Your task to perform on an android device: toggle translation in the chrome app Image 0: 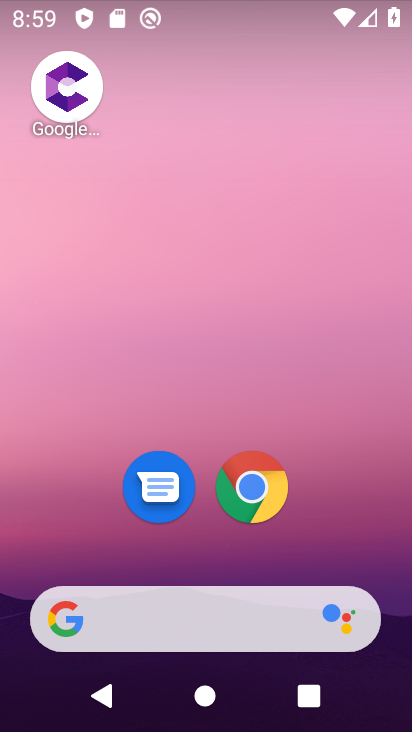
Step 0: click (250, 496)
Your task to perform on an android device: toggle translation in the chrome app Image 1: 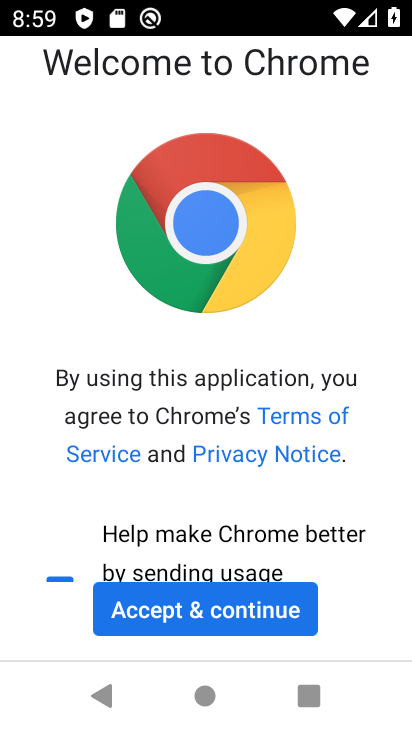
Step 1: click (198, 612)
Your task to perform on an android device: toggle translation in the chrome app Image 2: 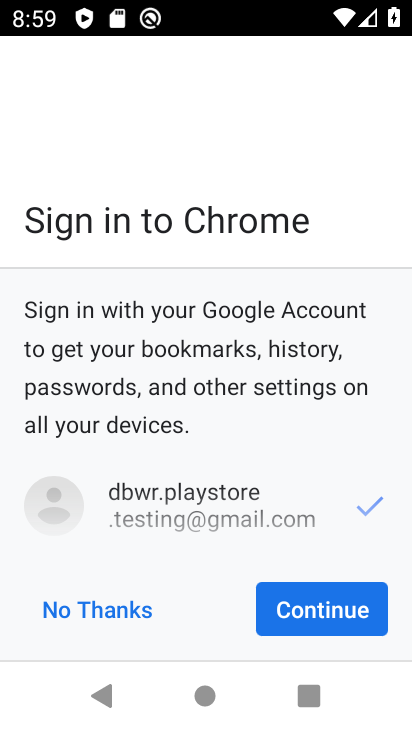
Step 2: click (306, 608)
Your task to perform on an android device: toggle translation in the chrome app Image 3: 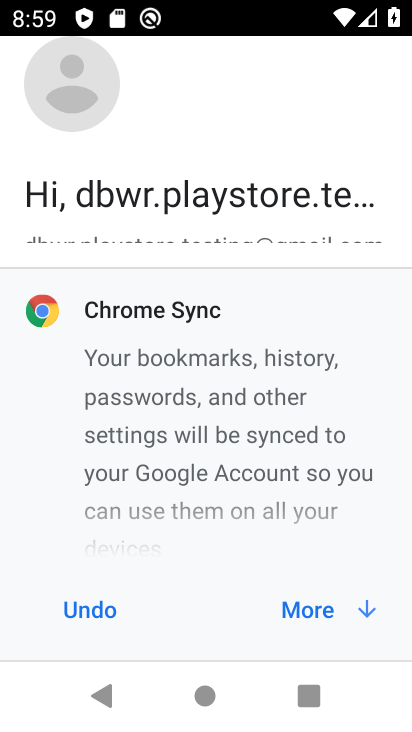
Step 3: click (306, 608)
Your task to perform on an android device: toggle translation in the chrome app Image 4: 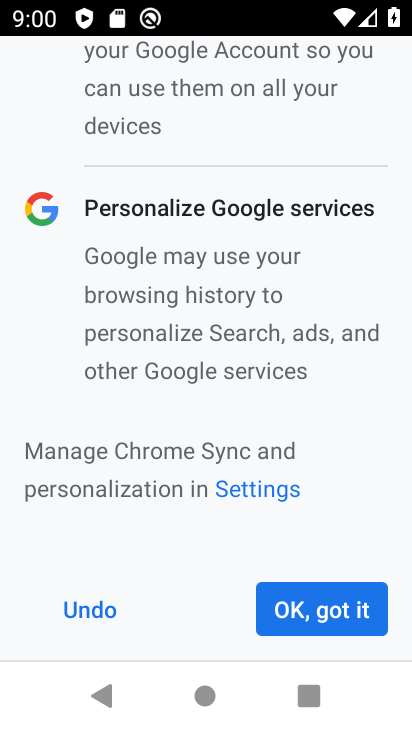
Step 4: click (306, 608)
Your task to perform on an android device: toggle translation in the chrome app Image 5: 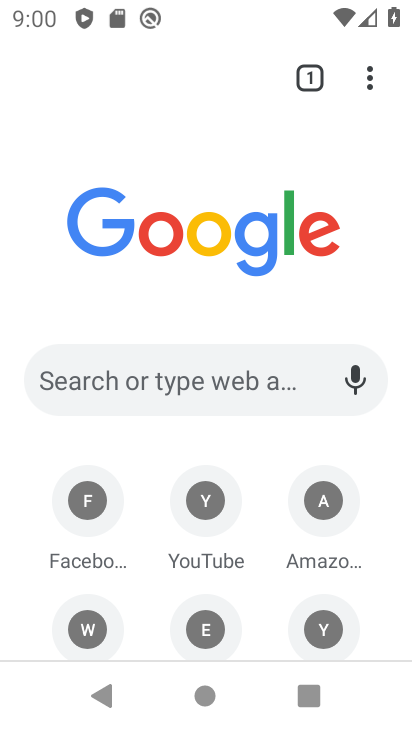
Step 5: click (371, 87)
Your task to perform on an android device: toggle translation in the chrome app Image 6: 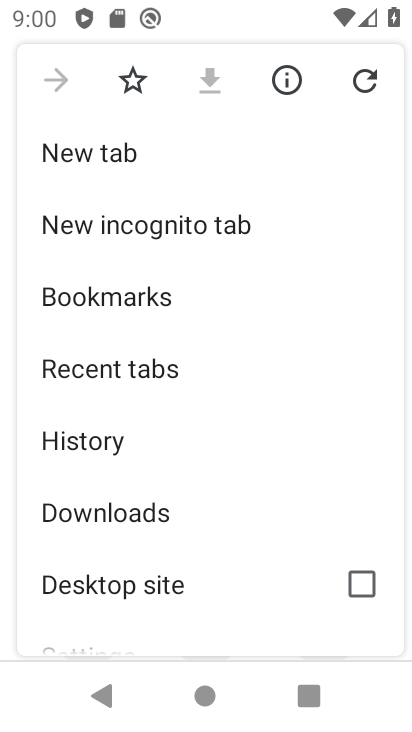
Step 6: drag from (128, 636) to (145, 187)
Your task to perform on an android device: toggle translation in the chrome app Image 7: 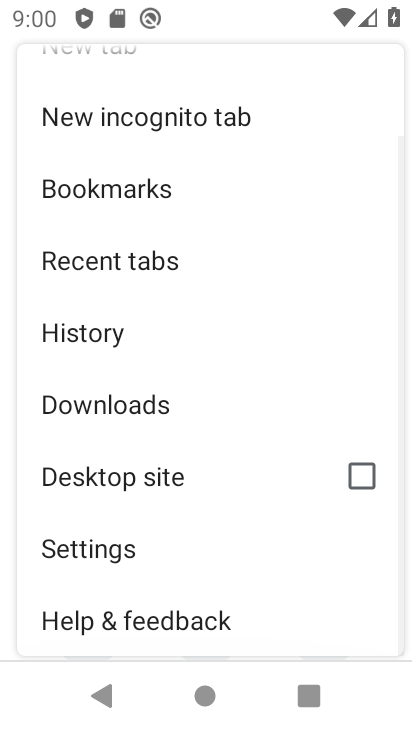
Step 7: click (97, 553)
Your task to perform on an android device: toggle translation in the chrome app Image 8: 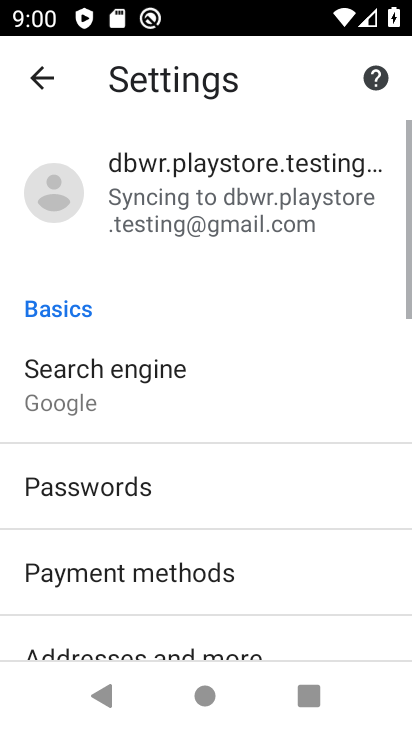
Step 8: drag from (153, 646) to (161, 292)
Your task to perform on an android device: toggle translation in the chrome app Image 9: 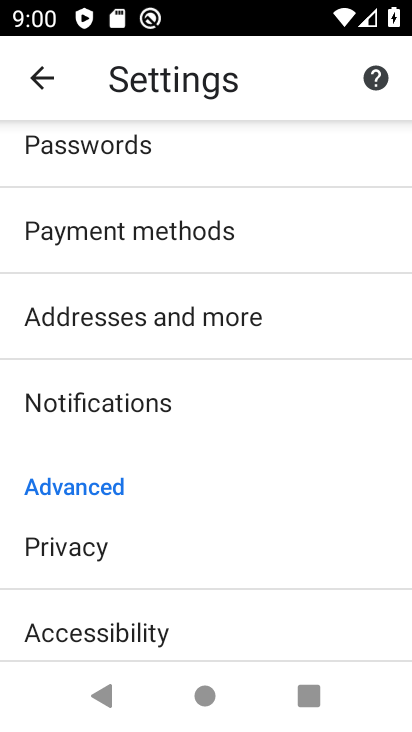
Step 9: drag from (147, 628) to (148, 298)
Your task to perform on an android device: toggle translation in the chrome app Image 10: 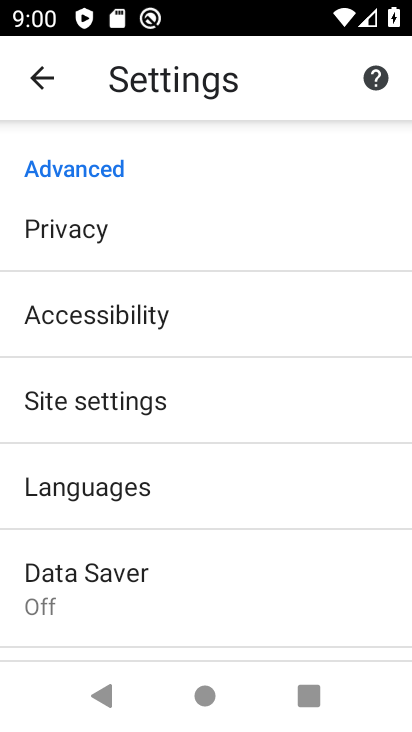
Step 10: click (88, 491)
Your task to perform on an android device: toggle translation in the chrome app Image 11: 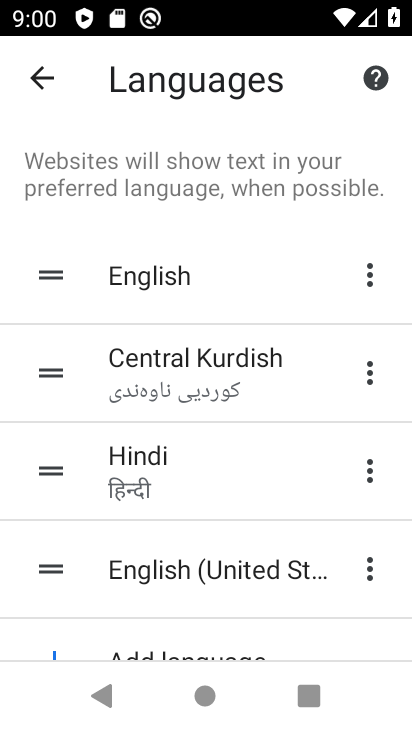
Step 11: drag from (227, 647) to (224, 286)
Your task to perform on an android device: toggle translation in the chrome app Image 12: 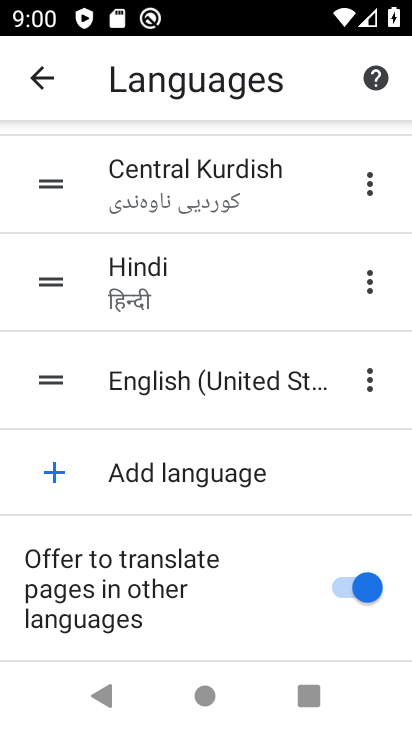
Step 12: click (352, 589)
Your task to perform on an android device: toggle translation in the chrome app Image 13: 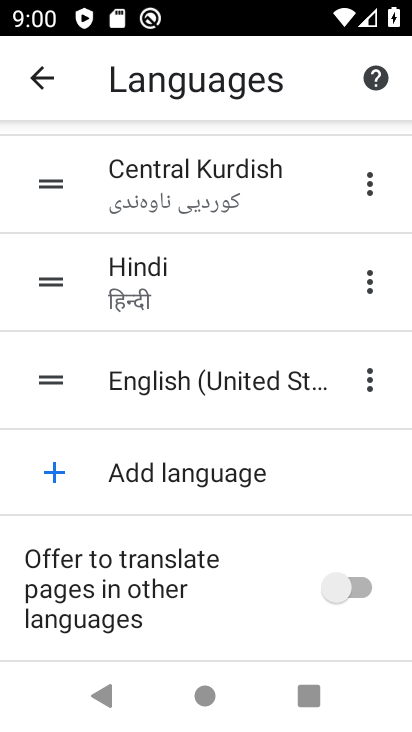
Step 13: task complete